Your task to perform on an android device: Open maps Image 0: 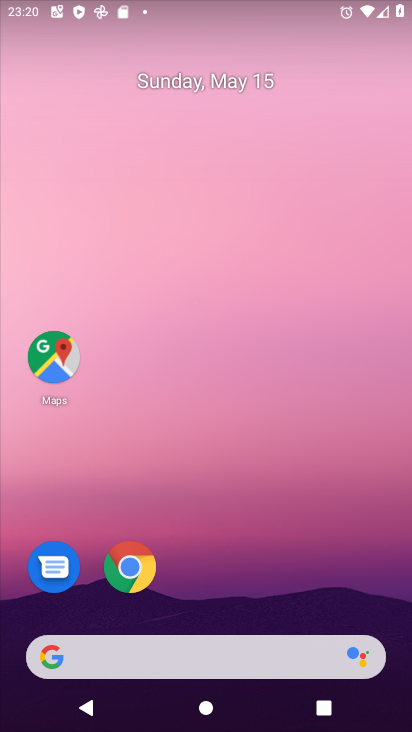
Step 0: click (42, 363)
Your task to perform on an android device: Open maps Image 1: 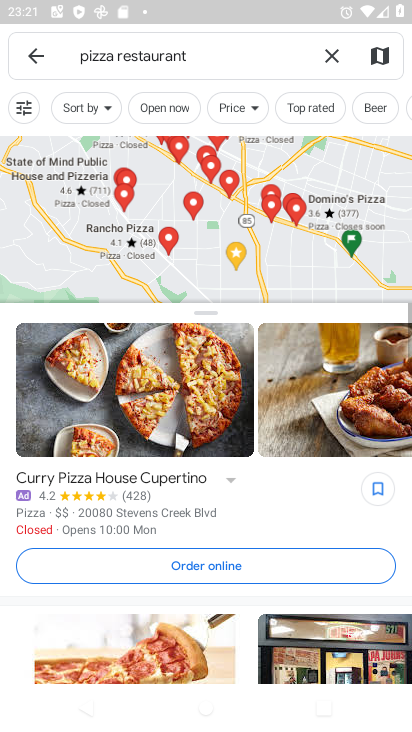
Step 1: task complete